Your task to perform on an android device: Open the web browser Image 0: 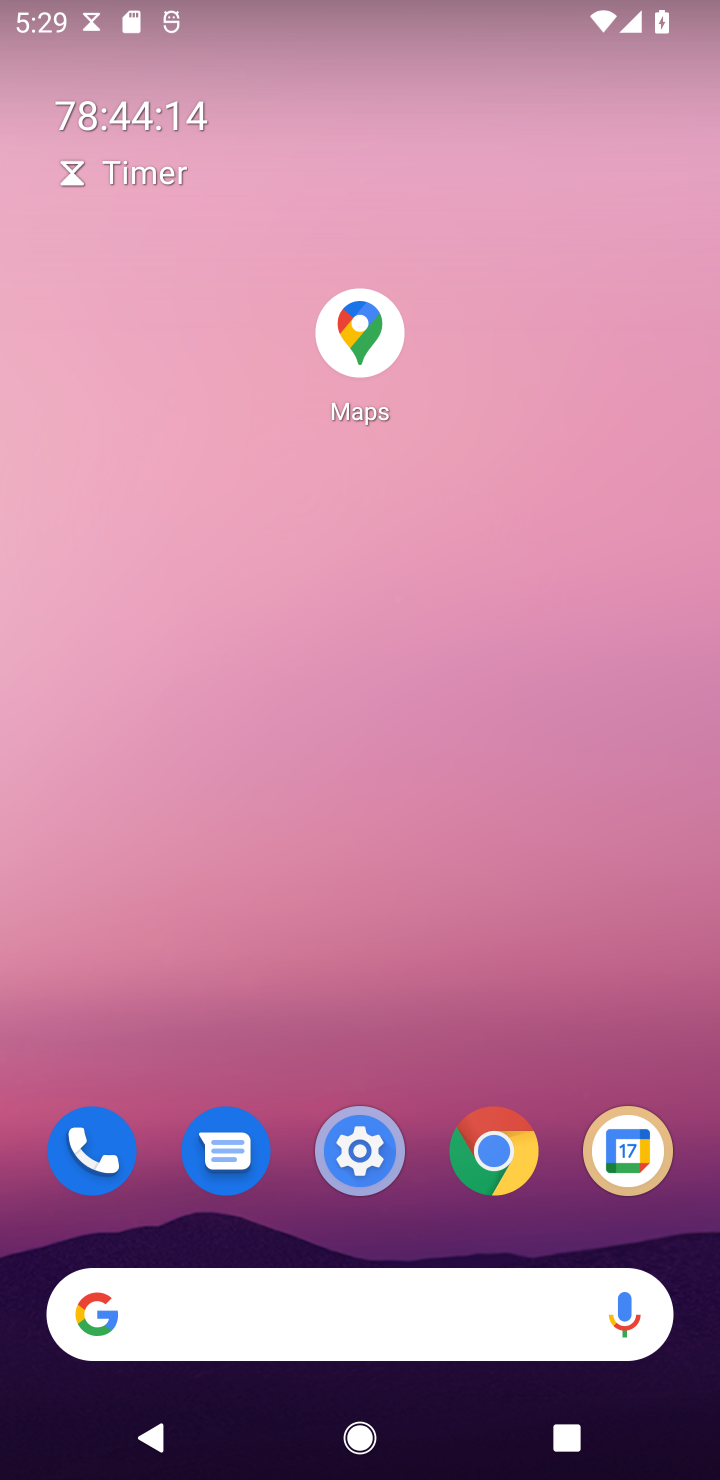
Step 0: drag from (274, 1269) to (242, 279)
Your task to perform on an android device: Open the web browser Image 1: 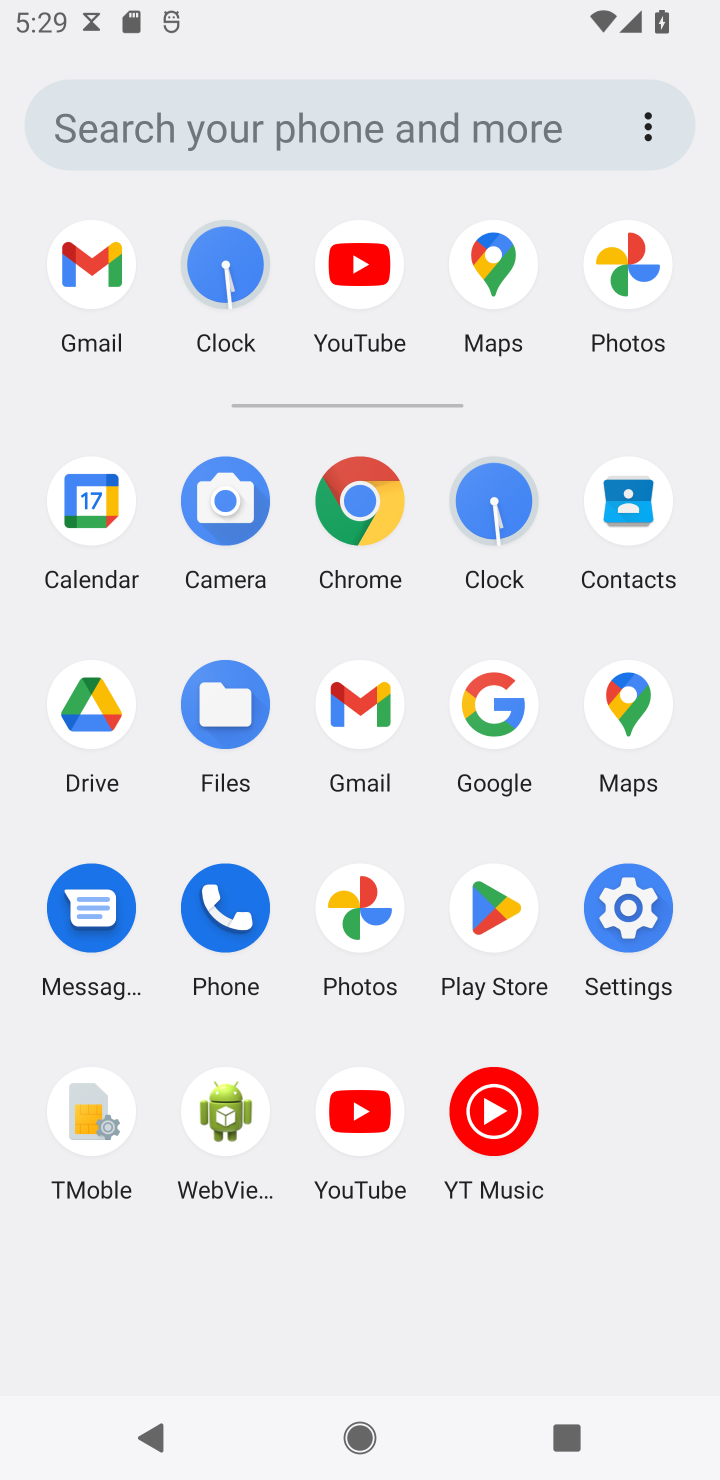
Step 1: click (350, 496)
Your task to perform on an android device: Open the web browser Image 2: 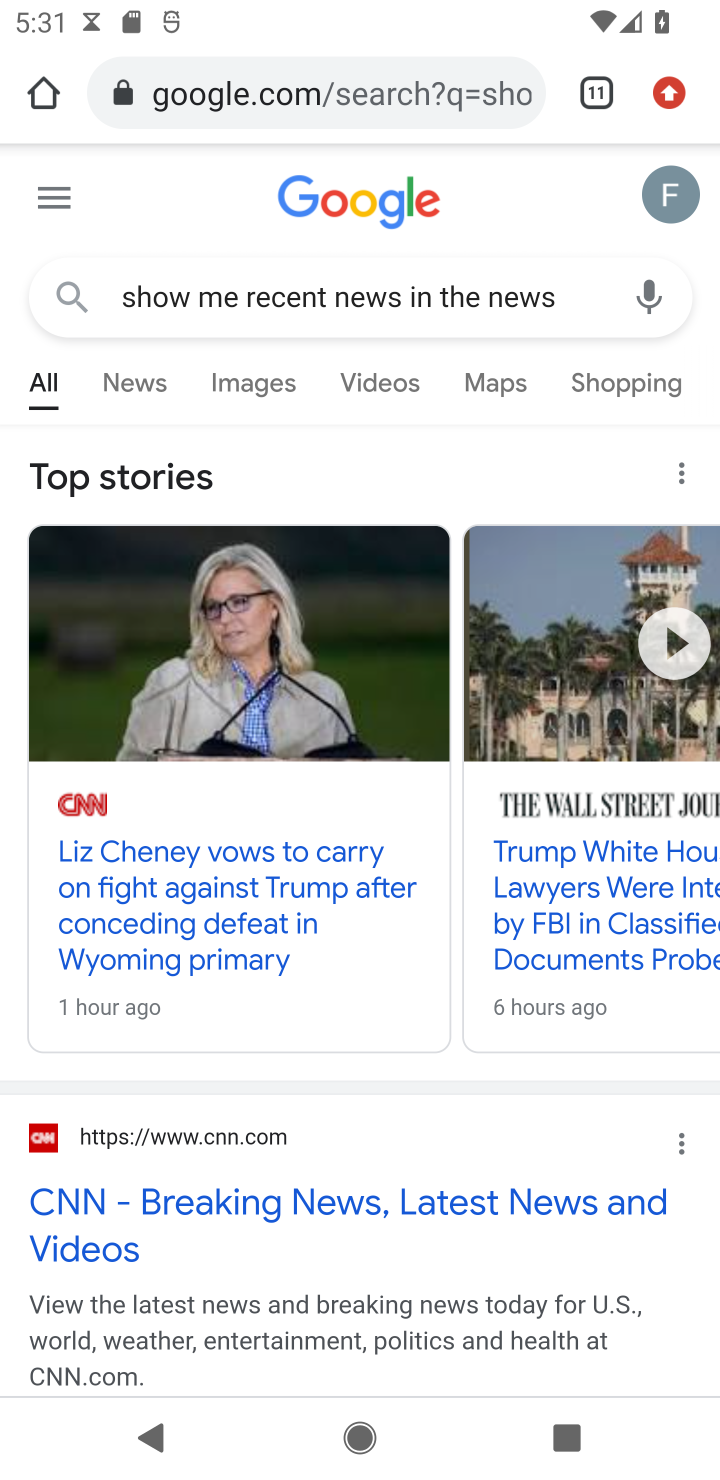
Step 2: task complete